Your task to perform on an android device: Show me popular videos on Youtube Image 0: 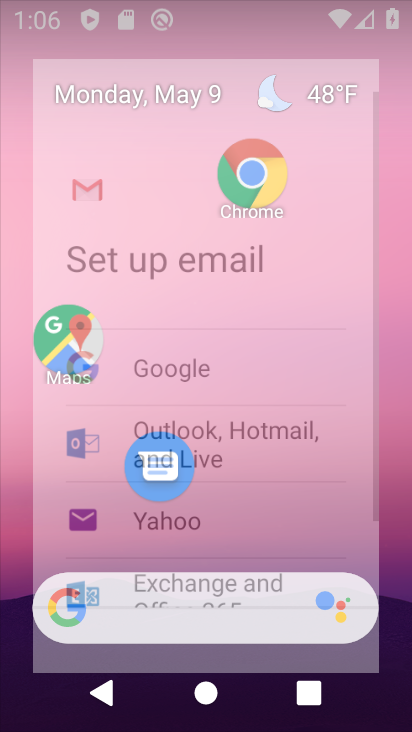
Step 0: click (244, 174)
Your task to perform on an android device: Show me popular videos on Youtube Image 1: 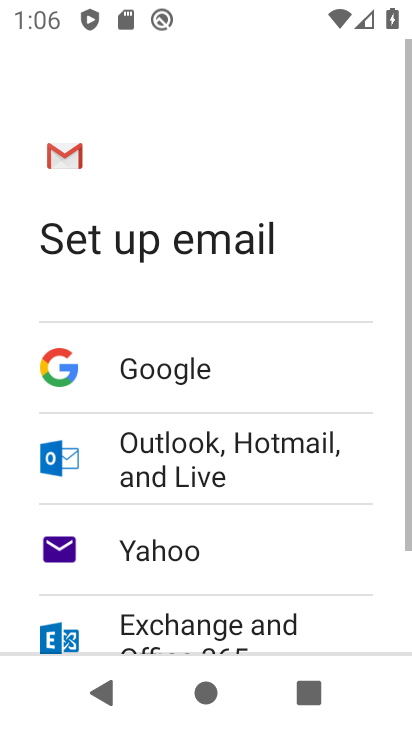
Step 1: press home button
Your task to perform on an android device: Show me popular videos on Youtube Image 2: 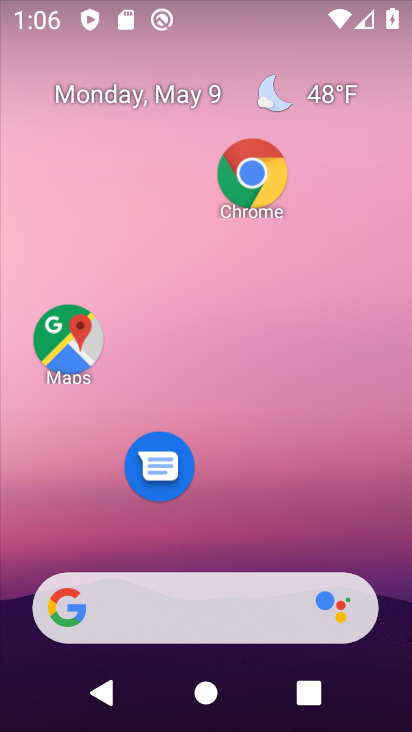
Step 2: drag from (214, 506) to (231, 182)
Your task to perform on an android device: Show me popular videos on Youtube Image 3: 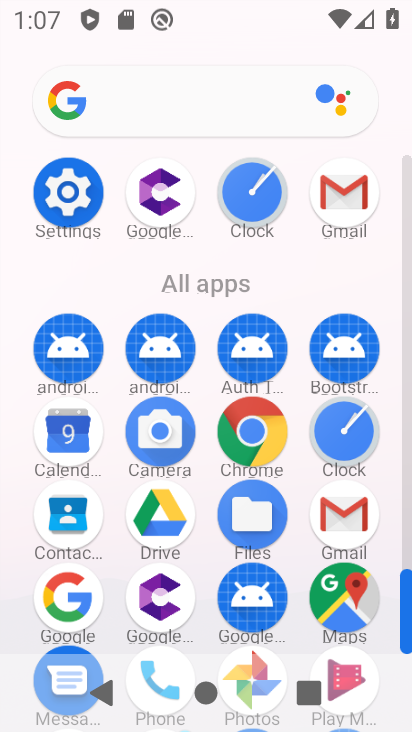
Step 3: drag from (266, 565) to (291, 304)
Your task to perform on an android device: Show me popular videos on Youtube Image 4: 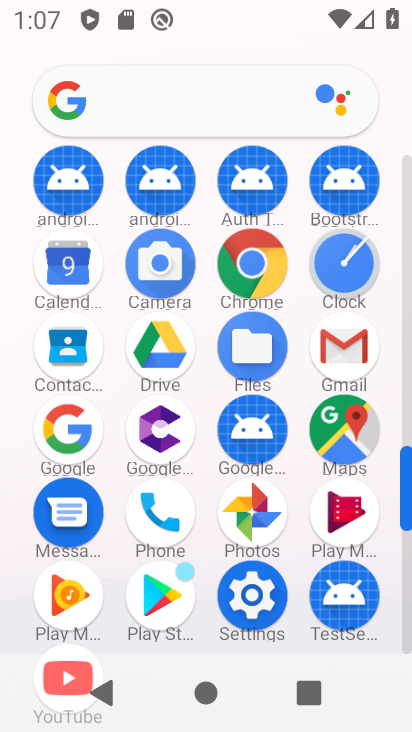
Step 4: drag from (286, 583) to (304, 341)
Your task to perform on an android device: Show me popular videos on Youtube Image 5: 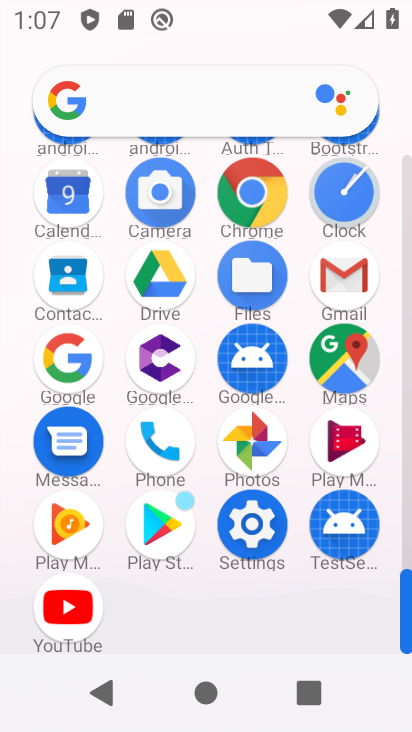
Step 5: click (52, 612)
Your task to perform on an android device: Show me popular videos on Youtube Image 6: 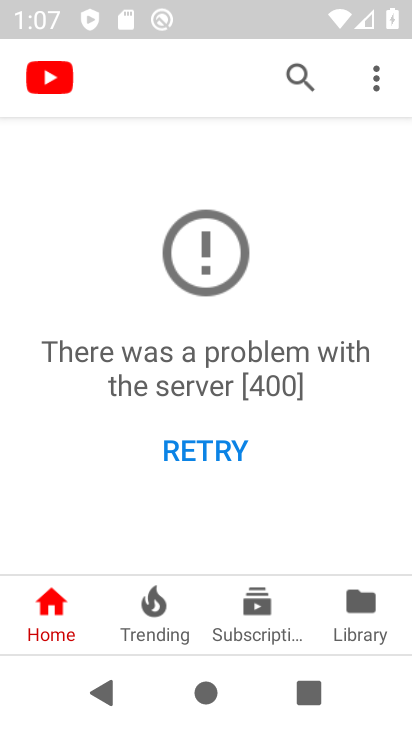
Step 6: click (297, 70)
Your task to perform on an android device: Show me popular videos on Youtube Image 7: 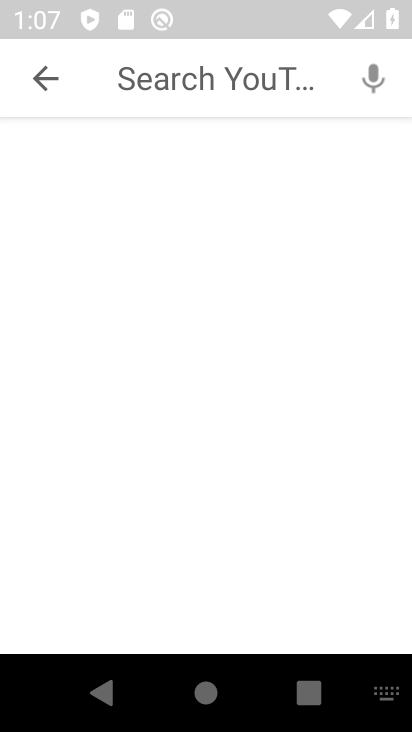
Step 7: type "popular videos"
Your task to perform on an android device: Show me popular videos on Youtube Image 8: 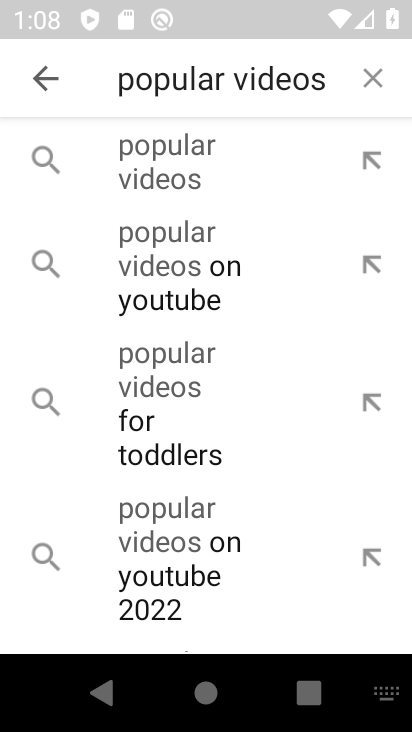
Step 8: click (106, 162)
Your task to perform on an android device: Show me popular videos on Youtube Image 9: 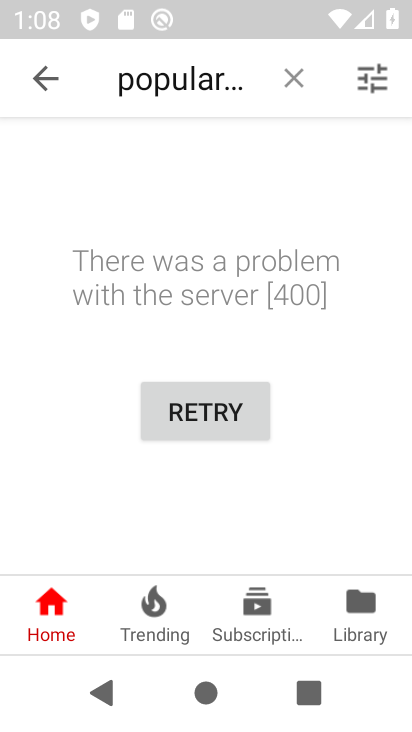
Step 9: task complete